Your task to perform on an android device: change the clock style Image 0: 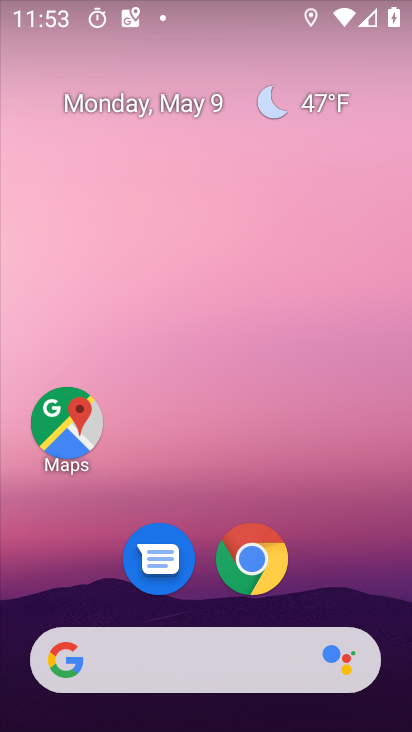
Step 0: press home button
Your task to perform on an android device: change the clock style Image 1: 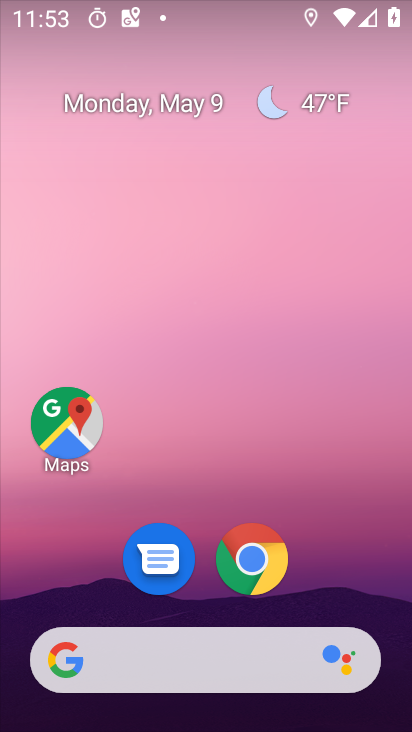
Step 1: drag from (341, 560) to (349, 261)
Your task to perform on an android device: change the clock style Image 2: 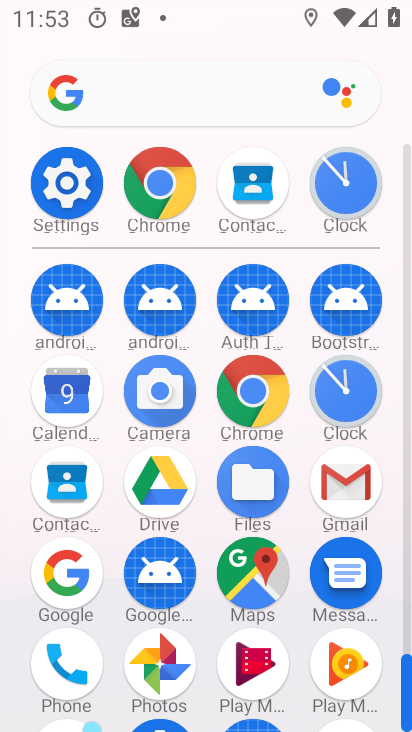
Step 2: click (358, 181)
Your task to perform on an android device: change the clock style Image 3: 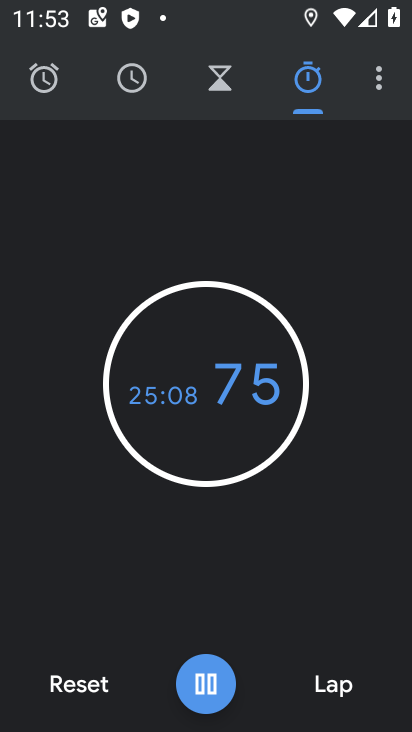
Step 3: click (369, 91)
Your task to perform on an android device: change the clock style Image 4: 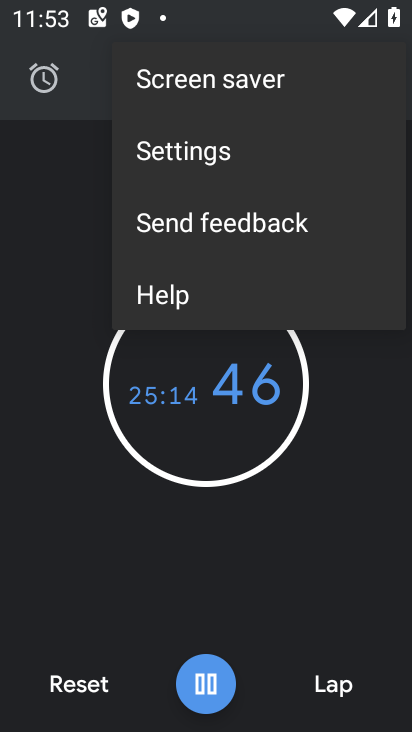
Step 4: click (189, 160)
Your task to perform on an android device: change the clock style Image 5: 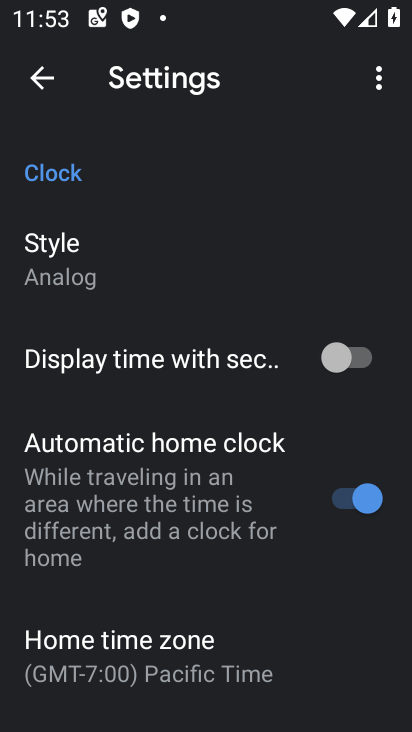
Step 5: drag from (130, 415) to (94, 234)
Your task to perform on an android device: change the clock style Image 6: 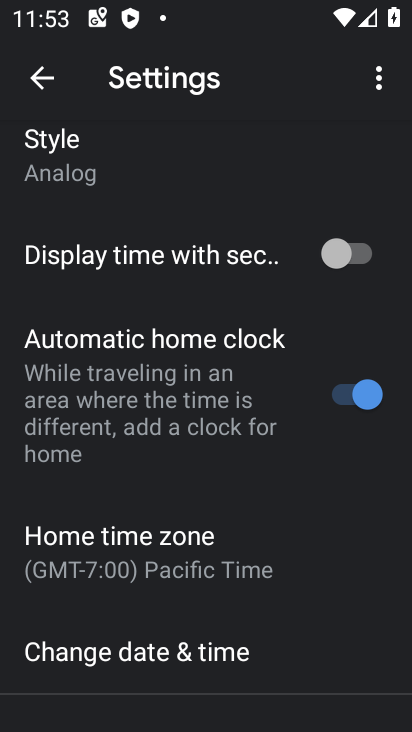
Step 6: click (142, 165)
Your task to perform on an android device: change the clock style Image 7: 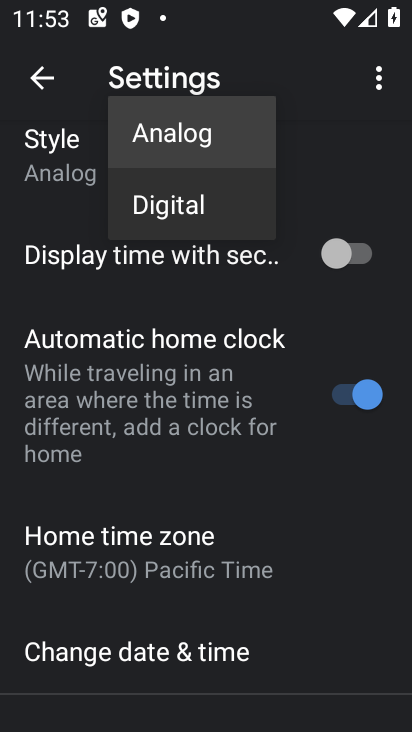
Step 7: click (142, 214)
Your task to perform on an android device: change the clock style Image 8: 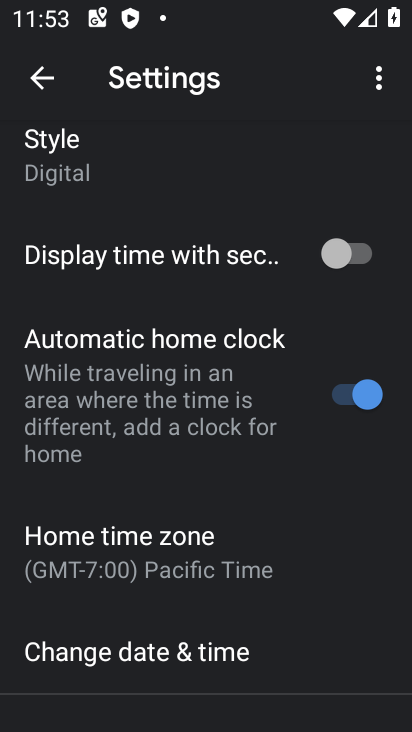
Step 8: task complete